Your task to perform on an android device: refresh tabs in the chrome app Image 0: 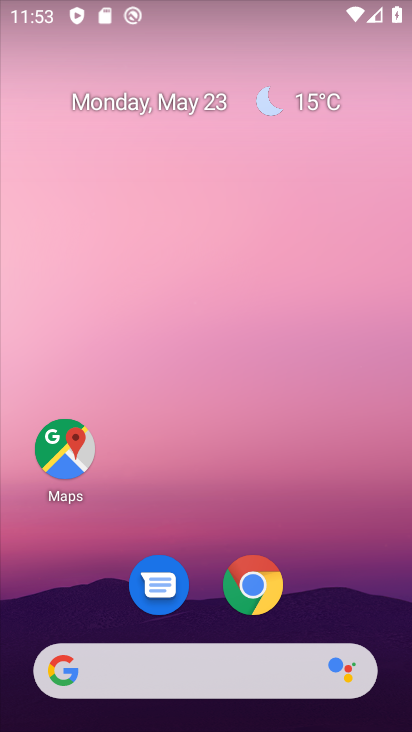
Step 0: click (254, 589)
Your task to perform on an android device: refresh tabs in the chrome app Image 1: 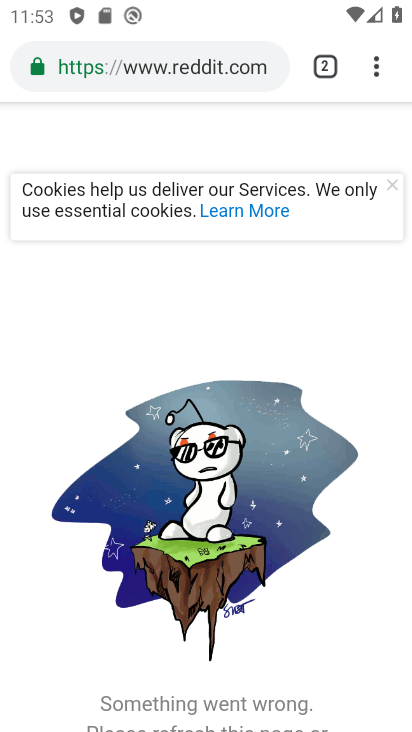
Step 1: click (372, 62)
Your task to perform on an android device: refresh tabs in the chrome app Image 2: 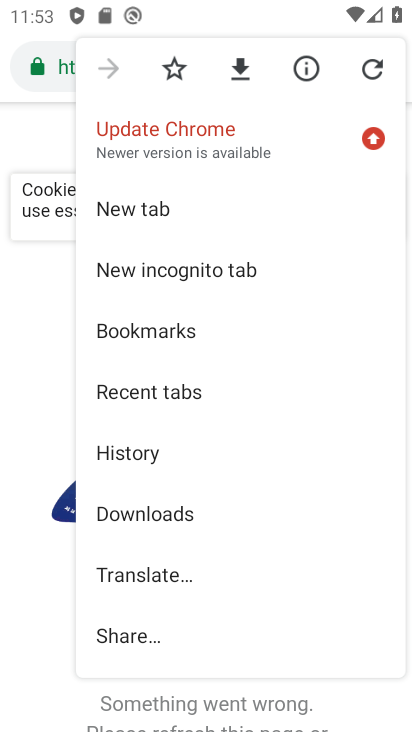
Step 2: click (236, 201)
Your task to perform on an android device: refresh tabs in the chrome app Image 3: 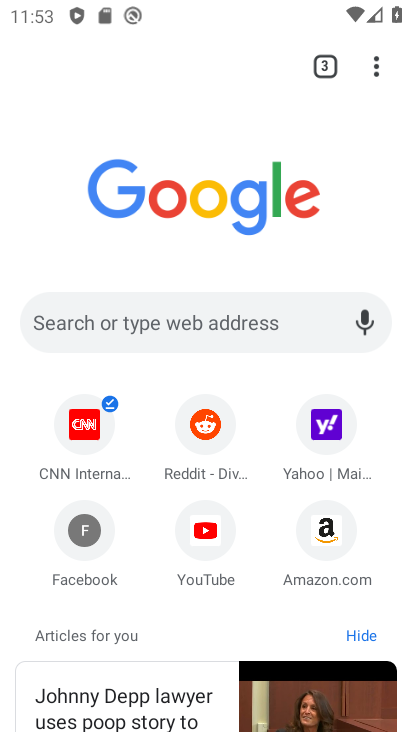
Step 3: click (373, 71)
Your task to perform on an android device: refresh tabs in the chrome app Image 4: 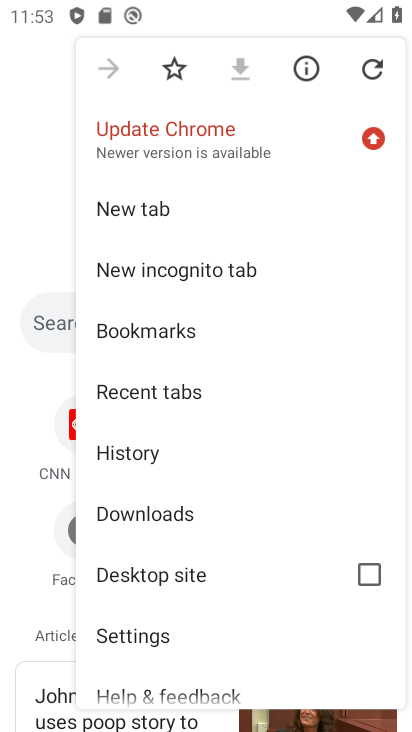
Step 4: click (365, 61)
Your task to perform on an android device: refresh tabs in the chrome app Image 5: 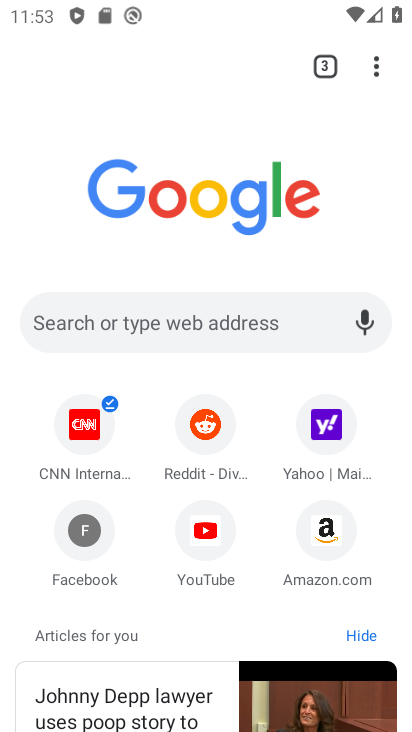
Step 5: task complete